Your task to perform on an android device: What's the news in Venezuela? Image 0: 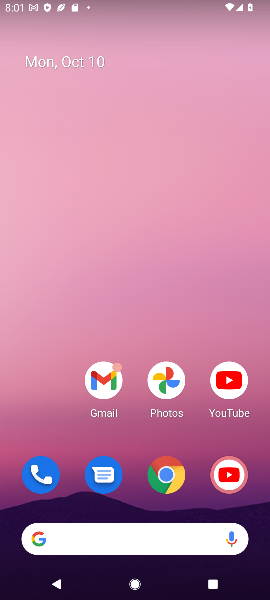
Step 0: drag from (131, 509) to (139, 145)
Your task to perform on an android device: What's the news in Venezuela? Image 1: 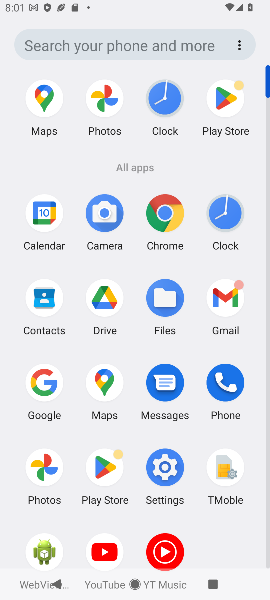
Step 1: click (165, 229)
Your task to perform on an android device: What's the news in Venezuela? Image 2: 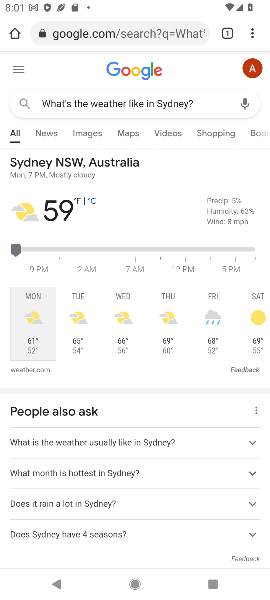
Step 2: click (161, 28)
Your task to perform on an android device: What's the news in Venezuela? Image 3: 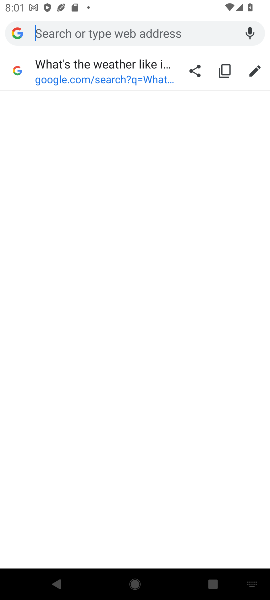
Step 3: drag from (10, 599) to (232, 585)
Your task to perform on an android device: What's the news in Venezuela? Image 4: 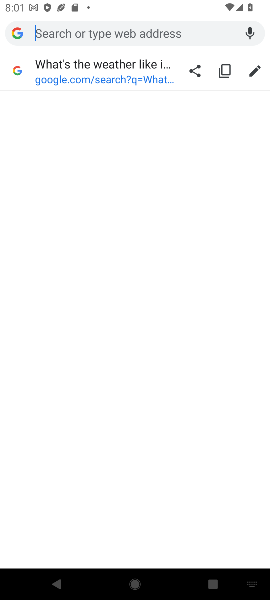
Step 4: type "What's the news in Venezuela?"
Your task to perform on an android device: What's the news in Venezuela? Image 5: 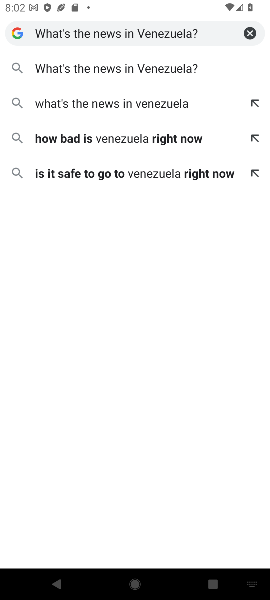
Step 5: click (183, 61)
Your task to perform on an android device: What's the news in Venezuela? Image 6: 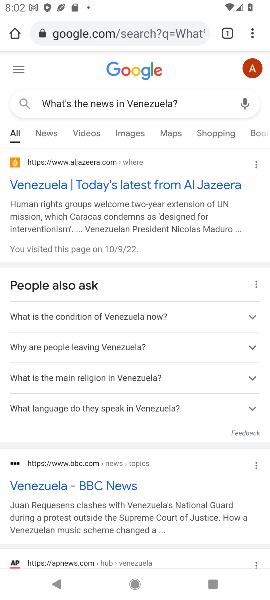
Step 6: click (83, 186)
Your task to perform on an android device: What's the news in Venezuela? Image 7: 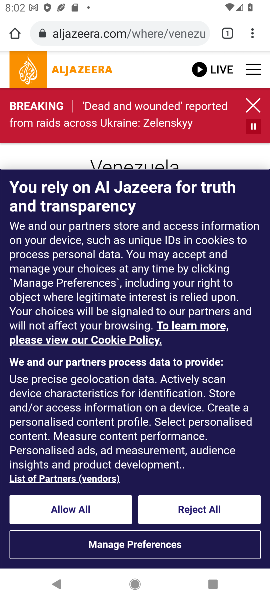
Step 7: click (94, 505)
Your task to perform on an android device: What's the news in Venezuela? Image 8: 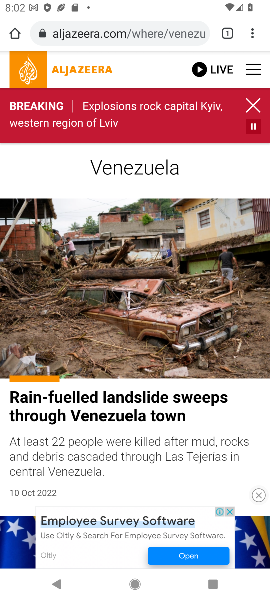
Step 8: click (249, 99)
Your task to perform on an android device: What's the news in Venezuela? Image 9: 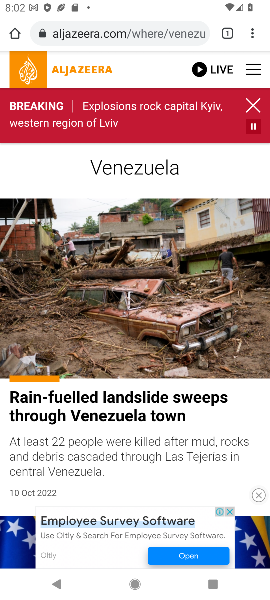
Step 9: task complete